Your task to perform on an android device: Go to eBay Image 0: 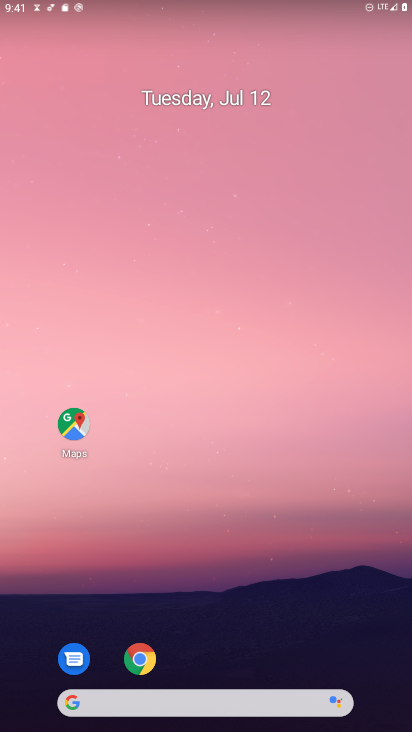
Step 0: drag from (202, 709) to (242, 183)
Your task to perform on an android device: Go to eBay Image 1: 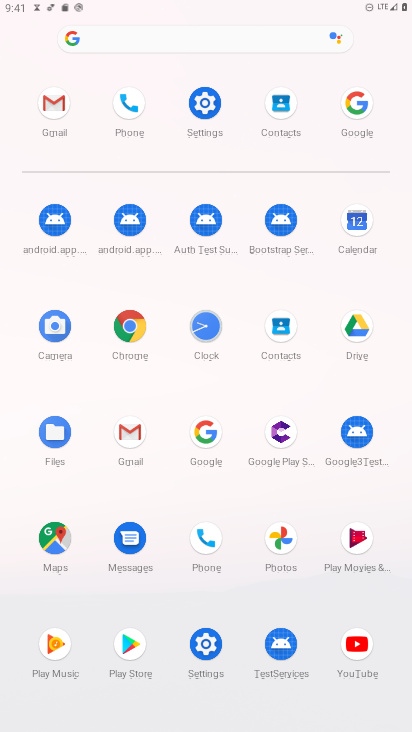
Step 1: click (132, 327)
Your task to perform on an android device: Go to eBay Image 2: 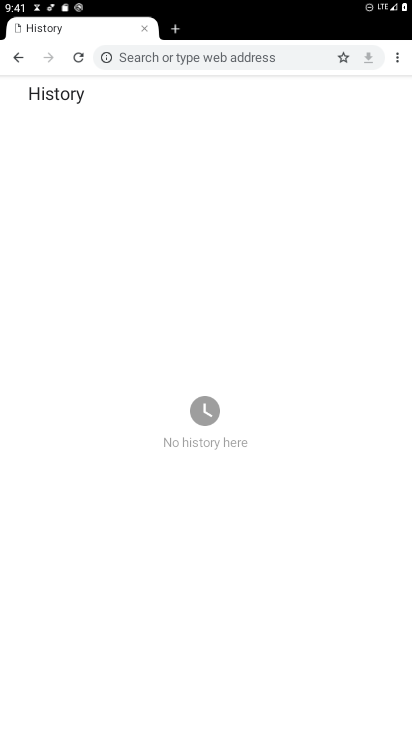
Step 2: click (299, 58)
Your task to perform on an android device: Go to eBay Image 3: 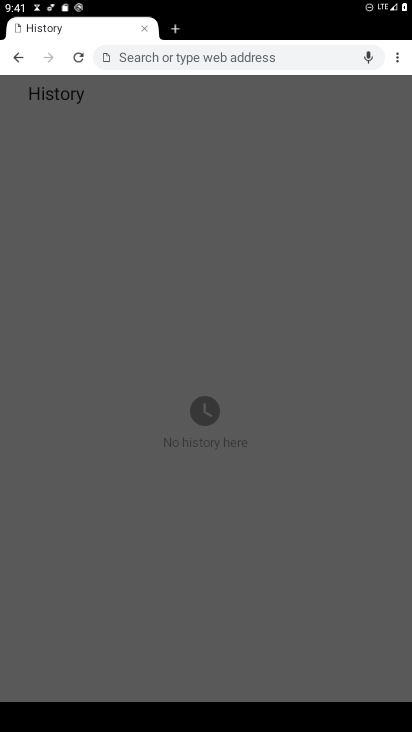
Step 3: type "eBay"
Your task to perform on an android device: Go to eBay Image 4: 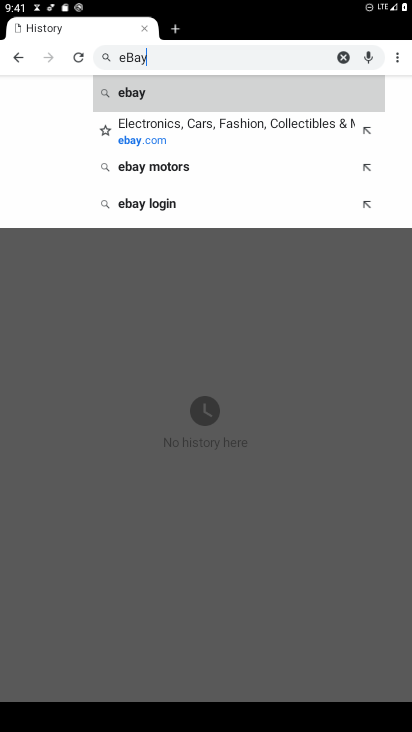
Step 4: click (177, 89)
Your task to perform on an android device: Go to eBay Image 5: 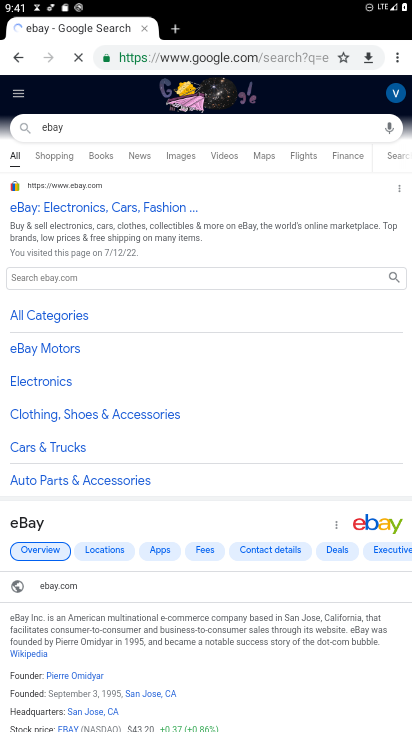
Step 5: click (114, 207)
Your task to perform on an android device: Go to eBay Image 6: 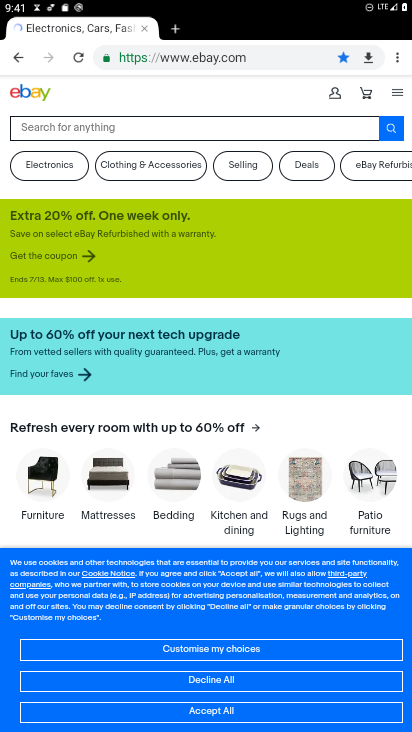
Step 6: task complete